Your task to perform on an android device: turn off javascript in the chrome app Image 0: 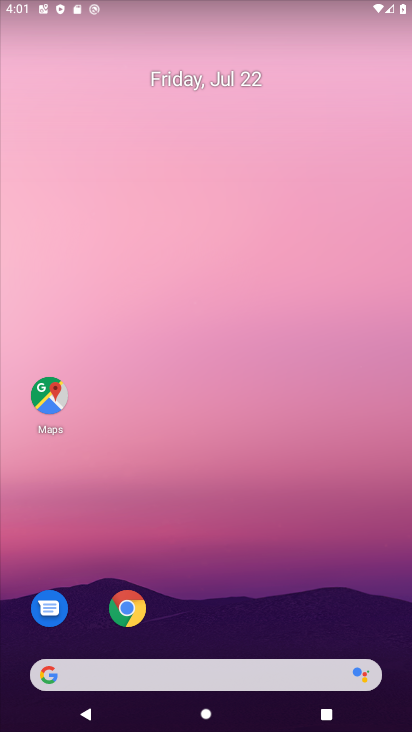
Step 0: click (130, 618)
Your task to perform on an android device: turn off javascript in the chrome app Image 1: 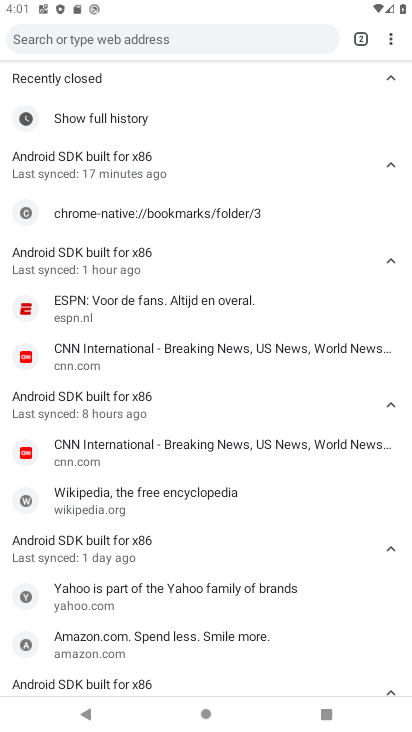
Step 1: click (392, 41)
Your task to perform on an android device: turn off javascript in the chrome app Image 2: 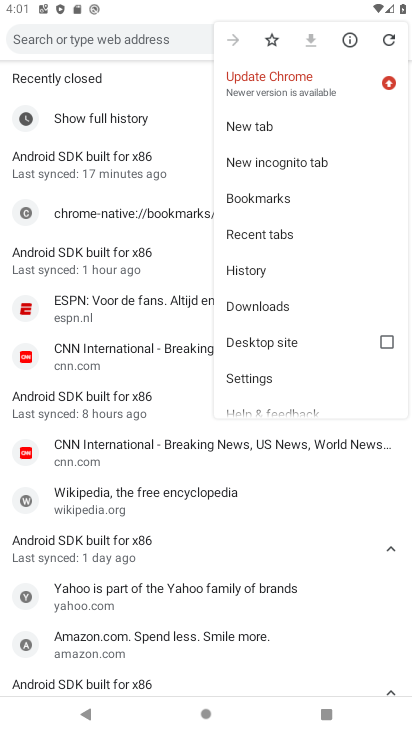
Step 2: click (246, 383)
Your task to perform on an android device: turn off javascript in the chrome app Image 3: 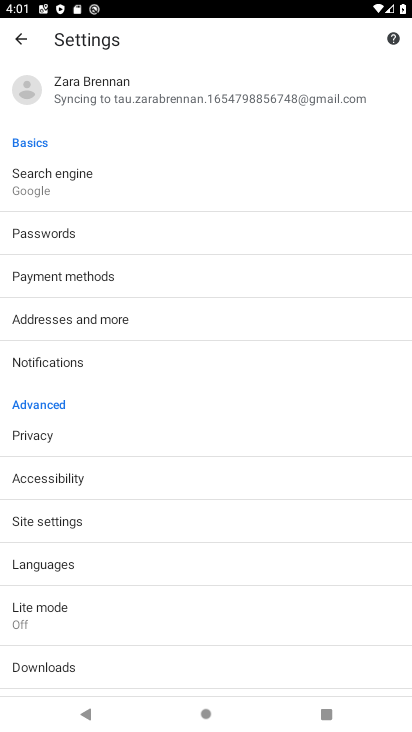
Step 3: click (59, 519)
Your task to perform on an android device: turn off javascript in the chrome app Image 4: 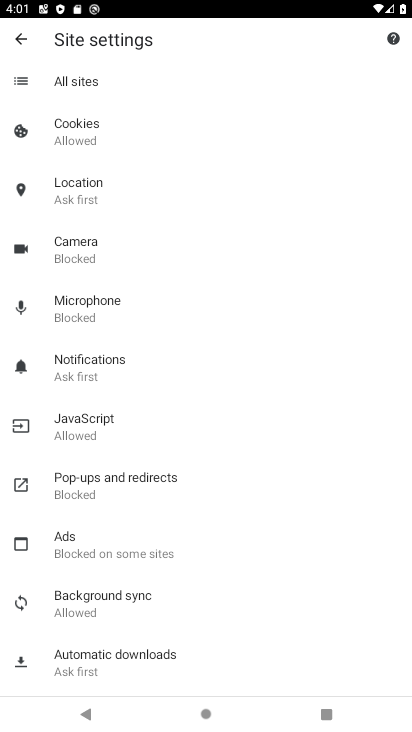
Step 4: click (73, 426)
Your task to perform on an android device: turn off javascript in the chrome app Image 5: 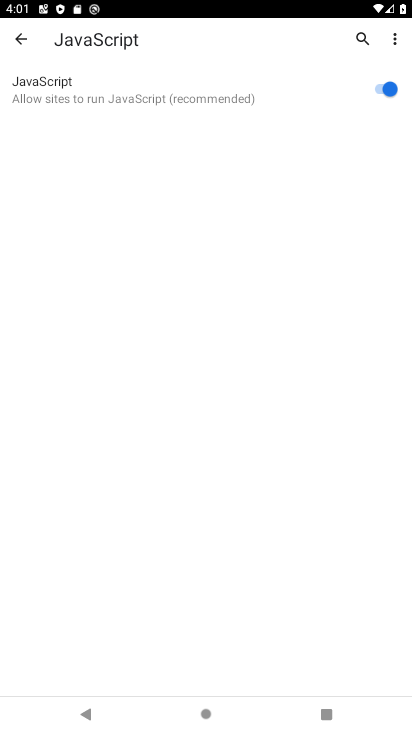
Step 5: click (385, 84)
Your task to perform on an android device: turn off javascript in the chrome app Image 6: 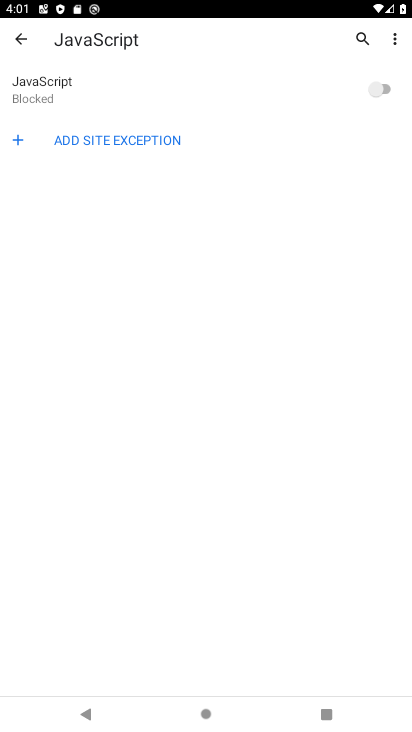
Step 6: task complete